Your task to perform on an android device: choose inbox layout in the gmail app Image 0: 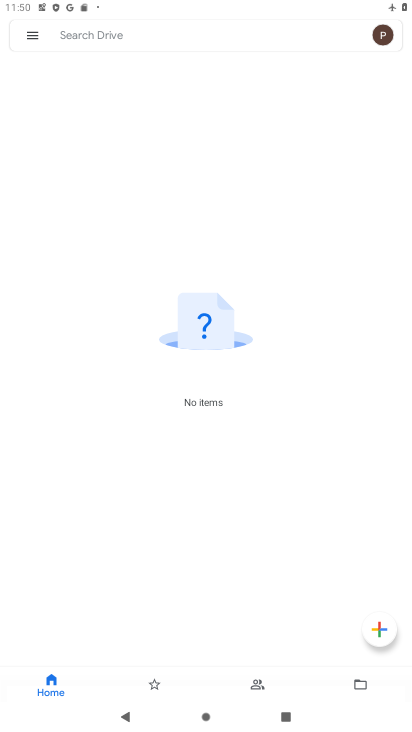
Step 0: press home button
Your task to perform on an android device: choose inbox layout in the gmail app Image 1: 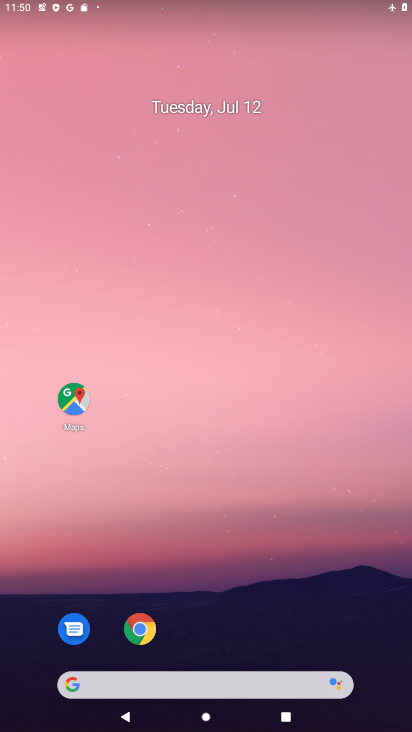
Step 1: drag from (137, 605) to (193, 242)
Your task to perform on an android device: choose inbox layout in the gmail app Image 2: 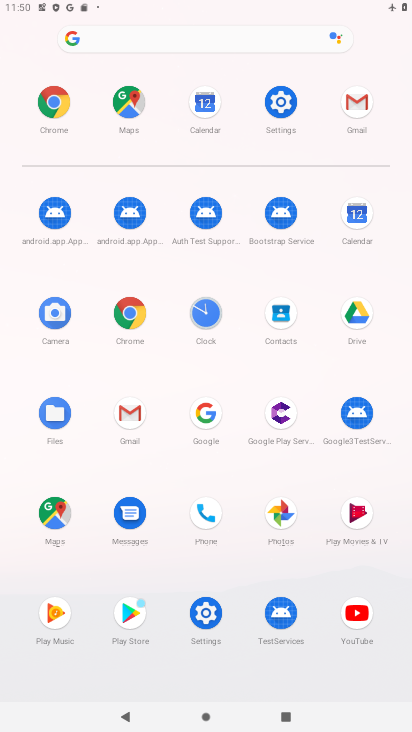
Step 2: click (356, 92)
Your task to perform on an android device: choose inbox layout in the gmail app Image 3: 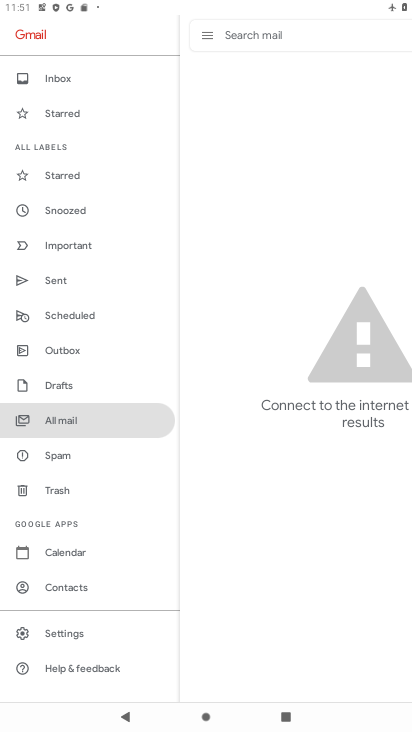
Step 3: click (40, 630)
Your task to perform on an android device: choose inbox layout in the gmail app Image 4: 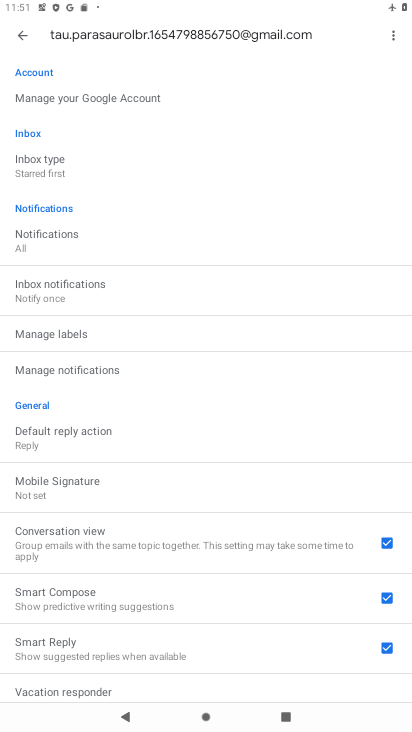
Step 4: click (38, 175)
Your task to perform on an android device: choose inbox layout in the gmail app Image 5: 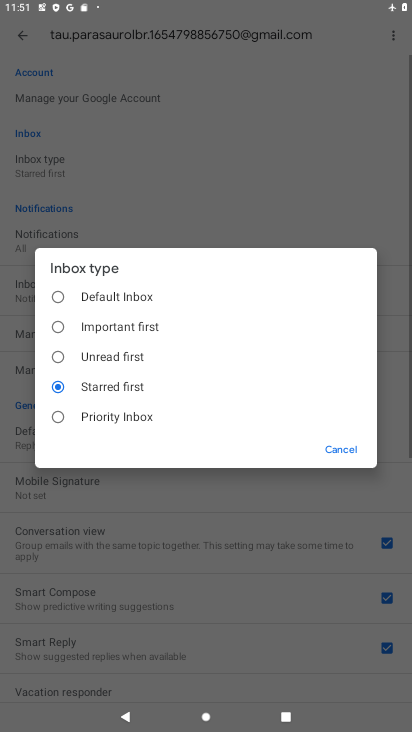
Step 5: click (62, 412)
Your task to perform on an android device: choose inbox layout in the gmail app Image 6: 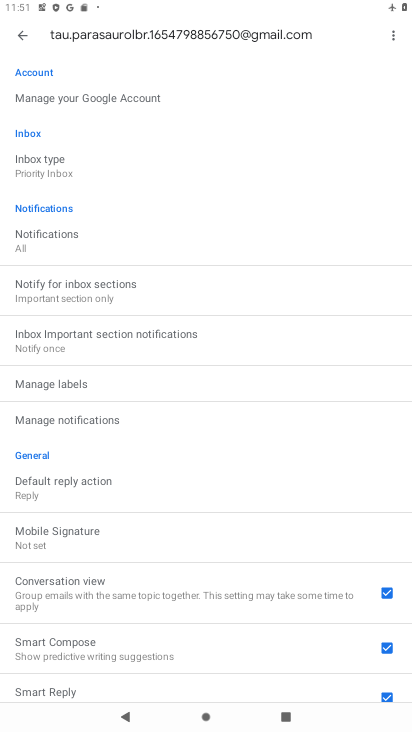
Step 6: task complete